Your task to perform on an android device: Open the calendar and show me this week's events? Image 0: 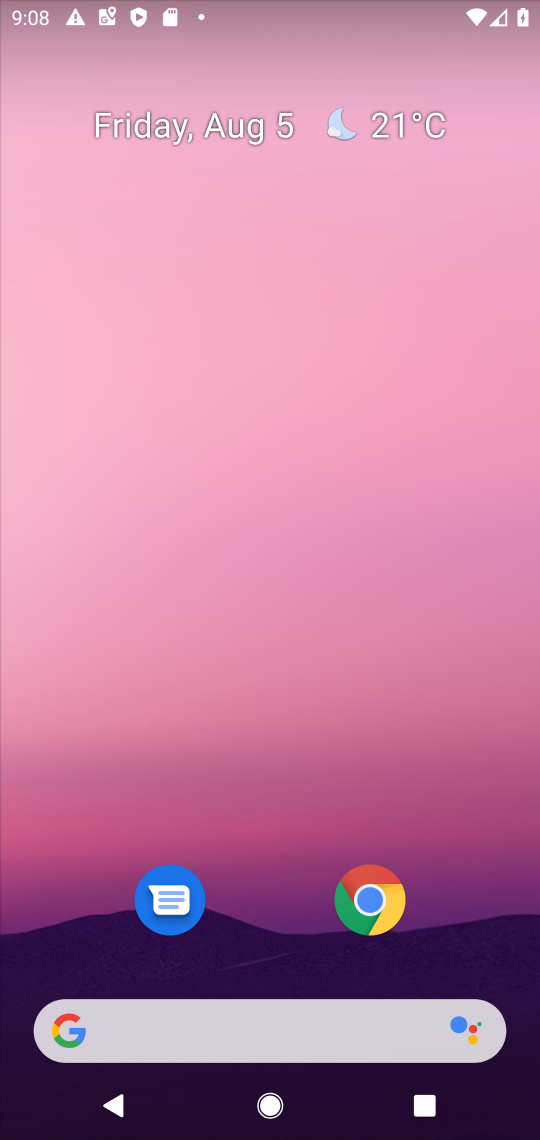
Step 0: click (276, 262)
Your task to perform on an android device: Open the calendar and show me this week's events? Image 1: 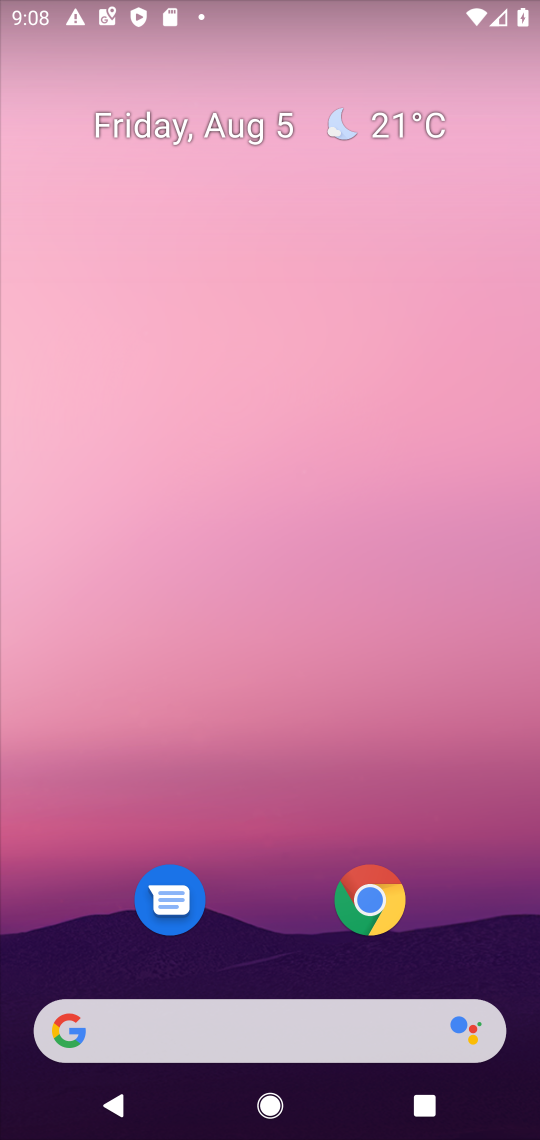
Step 1: press home button
Your task to perform on an android device: Open the calendar and show me this week's events? Image 2: 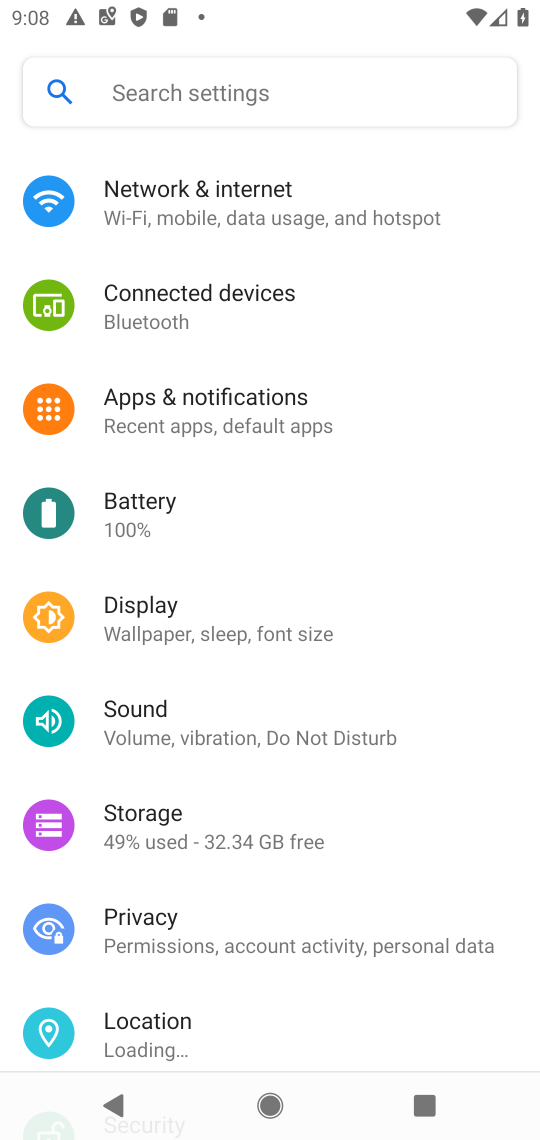
Step 2: press home button
Your task to perform on an android device: Open the calendar and show me this week's events? Image 3: 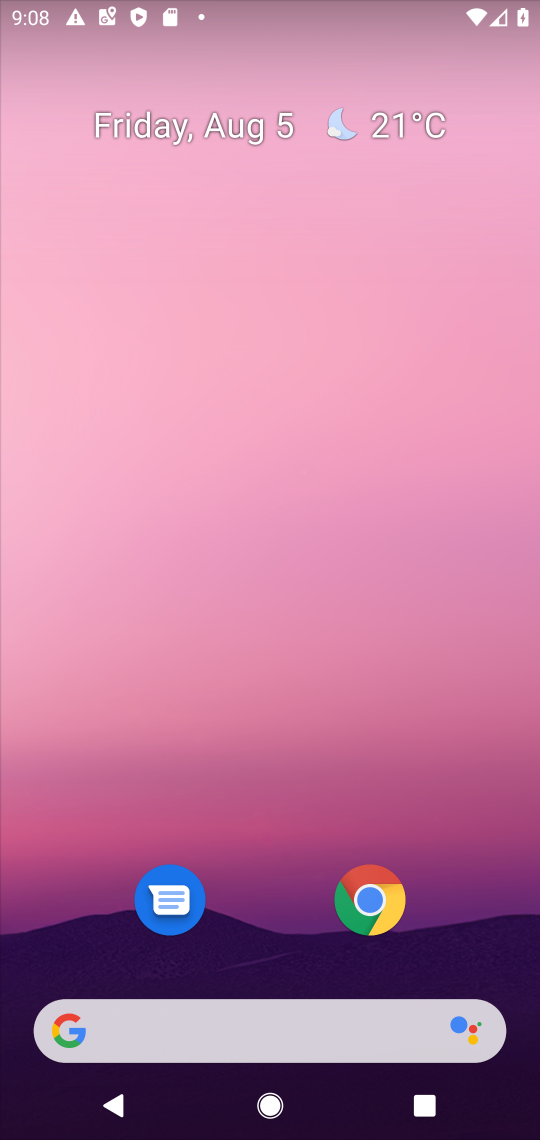
Step 3: drag from (350, 955) to (342, 590)
Your task to perform on an android device: Open the calendar and show me this week's events? Image 4: 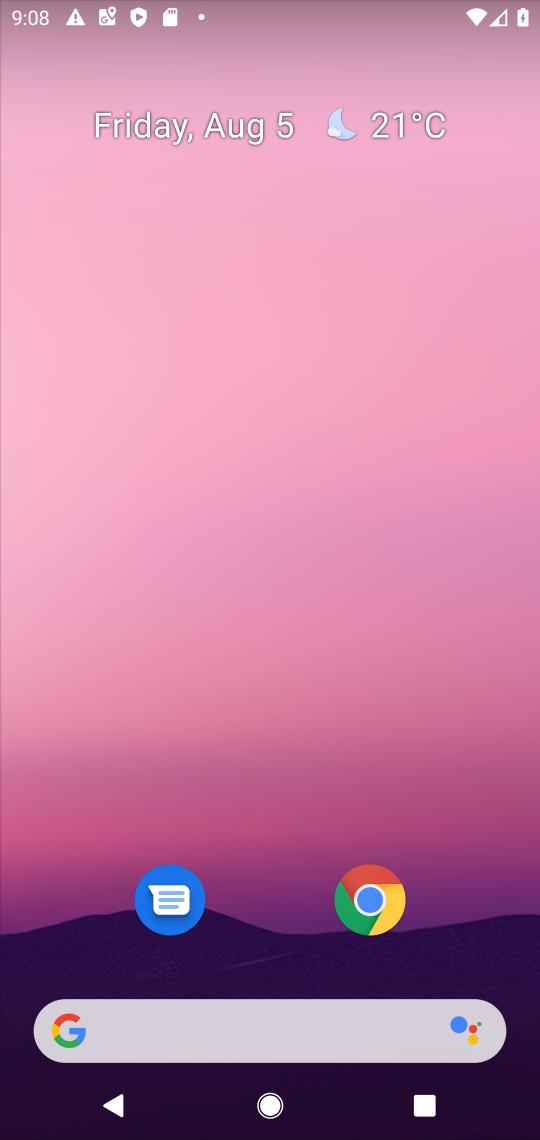
Step 4: drag from (301, 973) to (297, 475)
Your task to perform on an android device: Open the calendar and show me this week's events? Image 5: 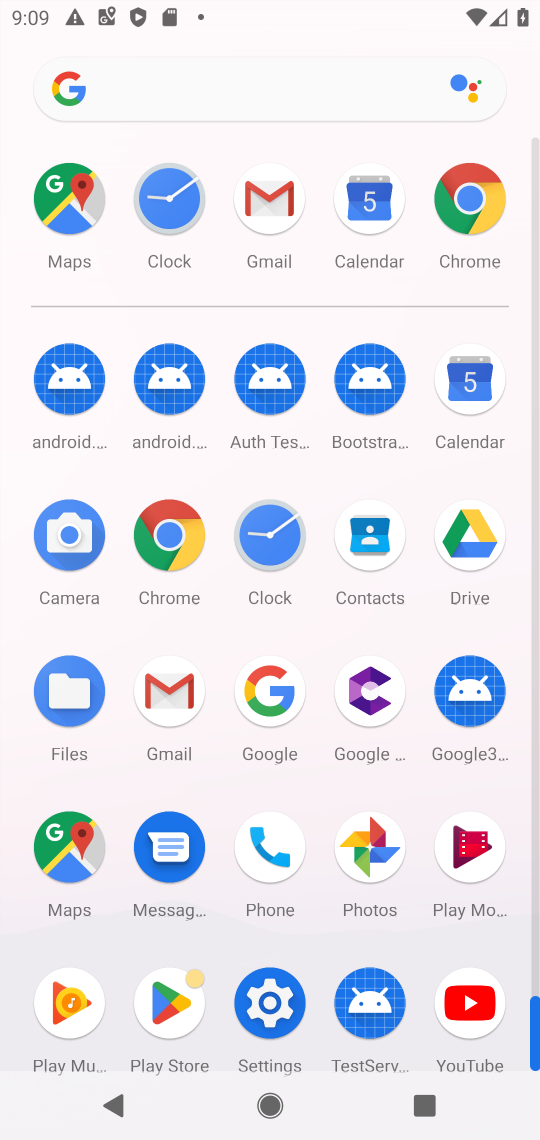
Step 5: click (469, 415)
Your task to perform on an android device: Open the calendar and show me this week's events? Image 6: 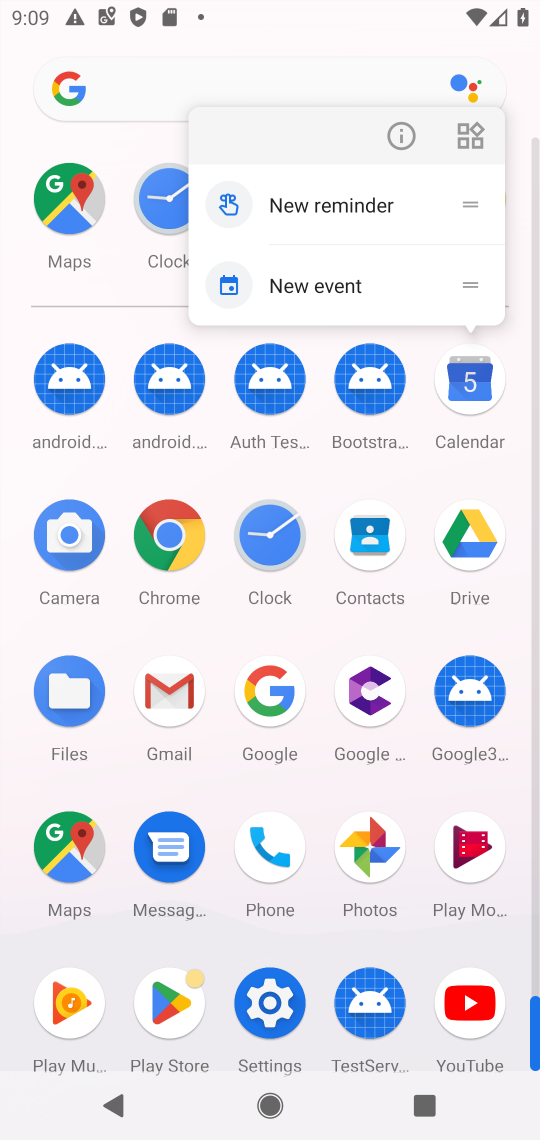
Step 6: click (469, 415)
Your task to perform on an android device: Open the calendar and show me this week's events? Image 7: 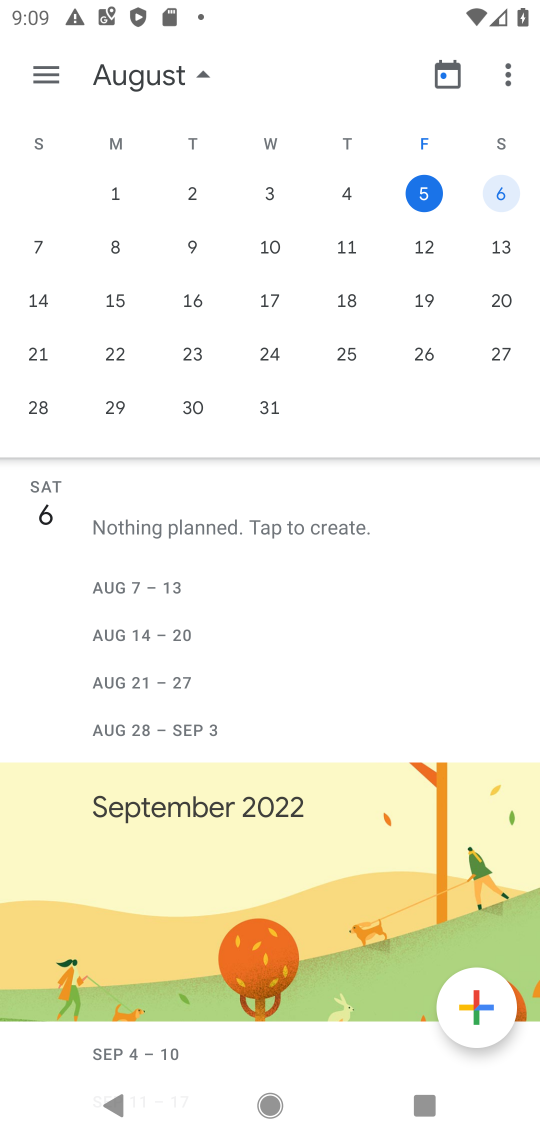
Step 7: click (507, 253)
Your task to perform on an android device: Open the calendar and show me this week's events? Image 8: 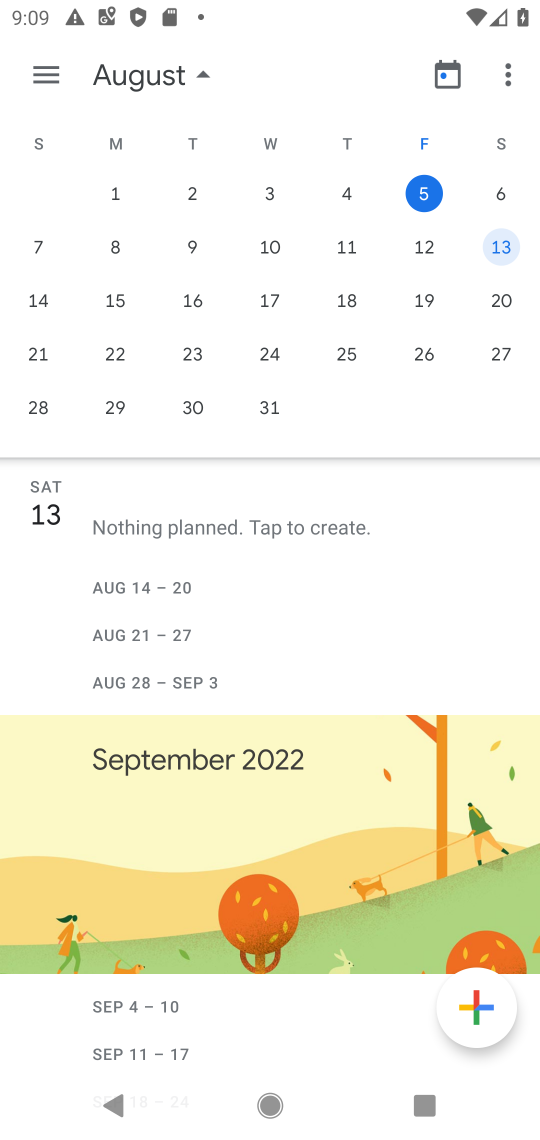
Step 8: task complete